Your task to perform on an android device: open a new tab in the chrome app Image 0: 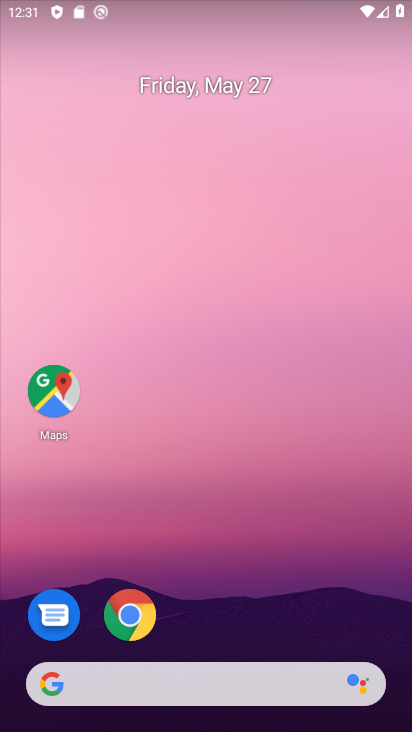
Step 0: press home button
Your task to perform on an android device: open a new tab in the chrome app Image 1: 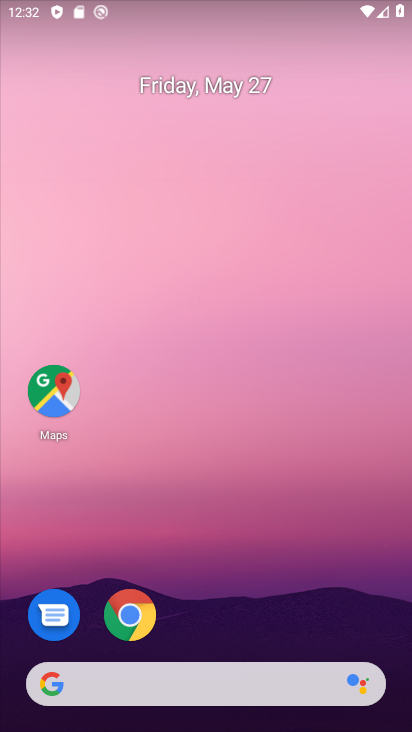
Step 1: click (135, 612)
Your task to perform on an android device: open a new tab in the chrome app Image 2: 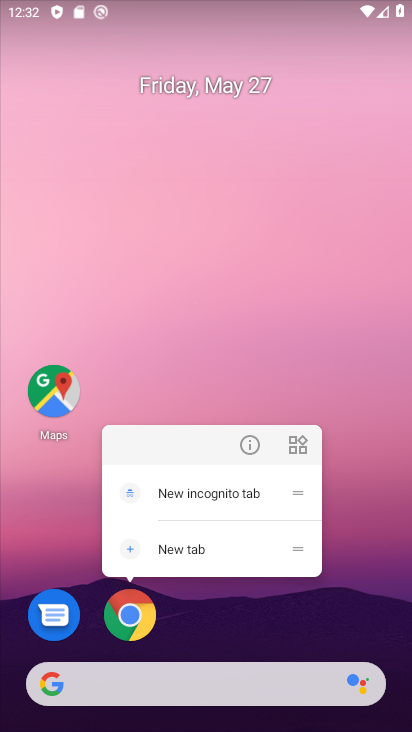
Step 2: click (137, 612)
Your task to perform on an android device: open a new tab in the chrome app Image 3: 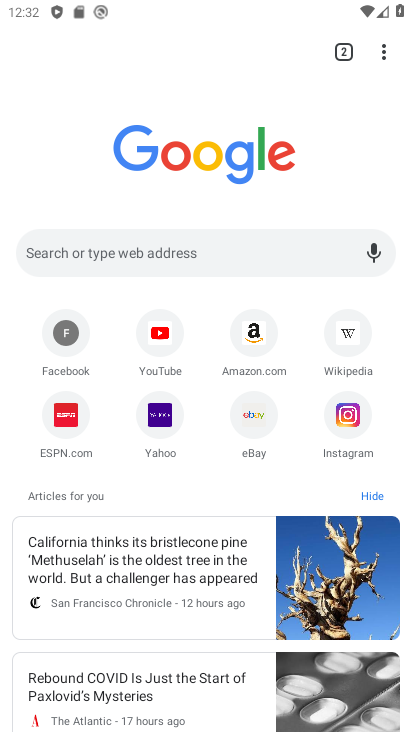
Step 3: click (383, 56)
Your task to perform on an android device: open a new tab in the chrome app Image 4: 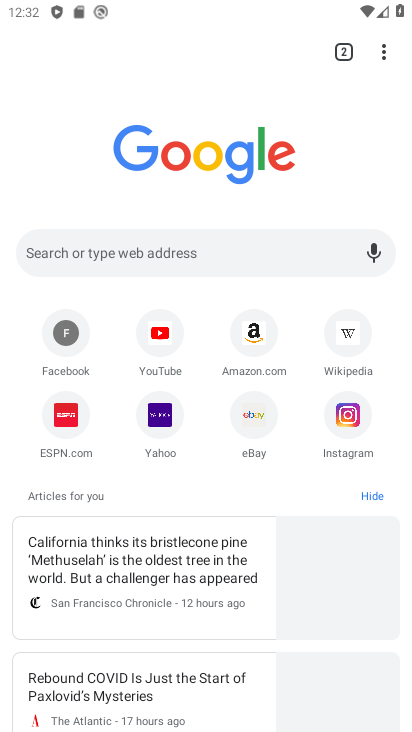
Step 4: click (338, 47)
Your task to perform on an android device: open a new tab in the chrome app Image 5: 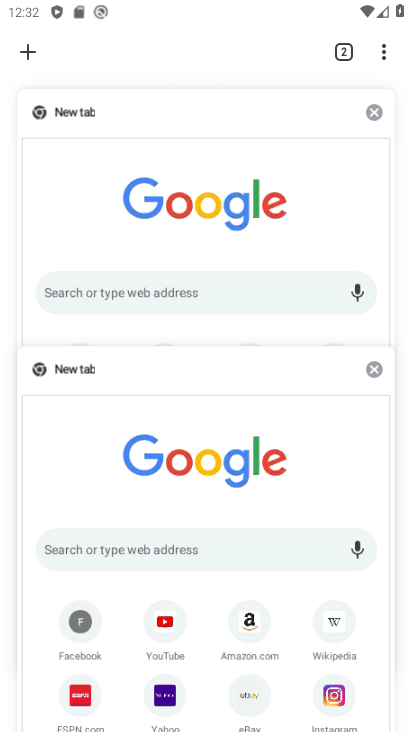
Step 5: click (26, 50)
Your task to perform on an android device: open a new tab in the chrome app Image 6: 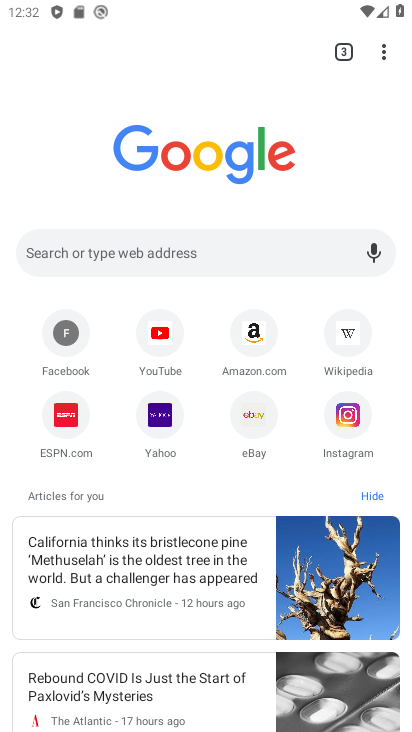
Step 6: task complete